Your task to perform on an android device: turn vacation reply on in the gmail app Image 0: 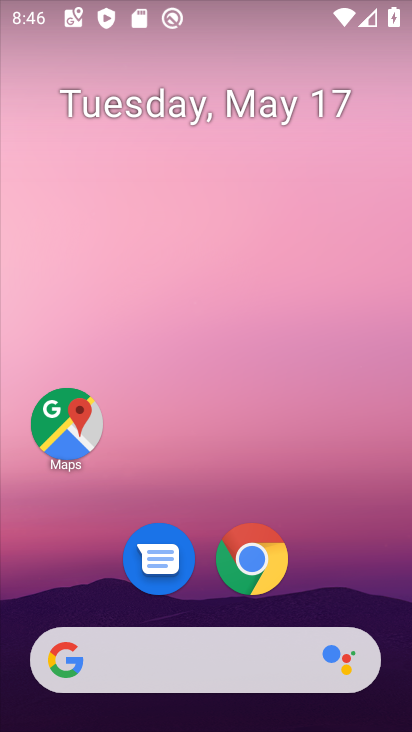
Step 0: drag from (248, 658) to (364, 309)
Your task to perform on an android device: turn vacation reply on in the gmail app Image 1: 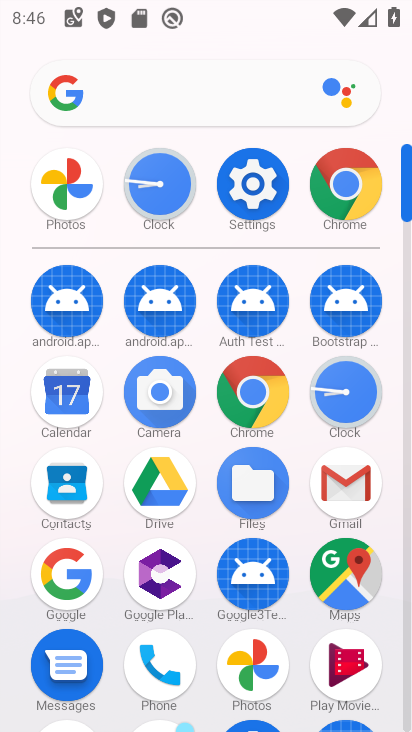
Step 1: click (347, 490)
Your task to perform on an android device: turn vacation reply on in the gmail app Image 2: 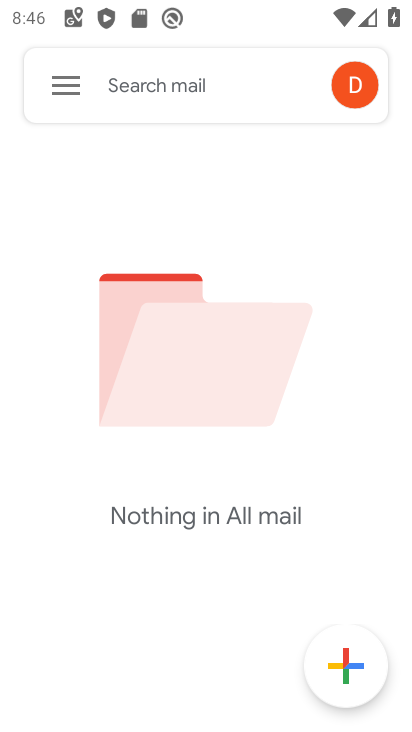
Step 2: click (56, 78)
Your task to perform on an android device: turn vacation reply on in the gmail app Image 3: 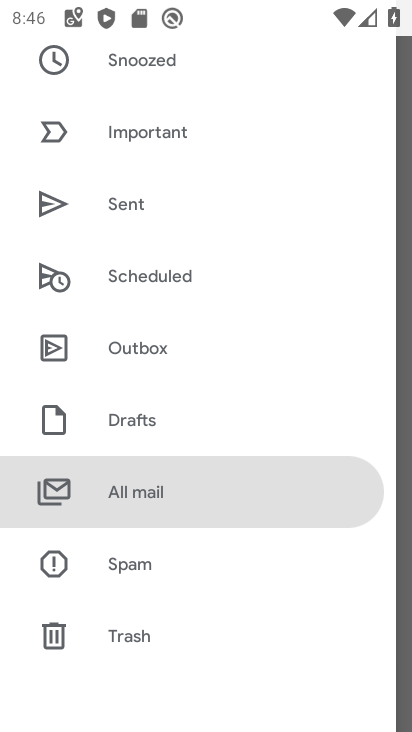
Step 3: drag from (222, 638) to (197, 213)
Your task to perform on an android device: turn vacation reply on in the gmail app Image 4: 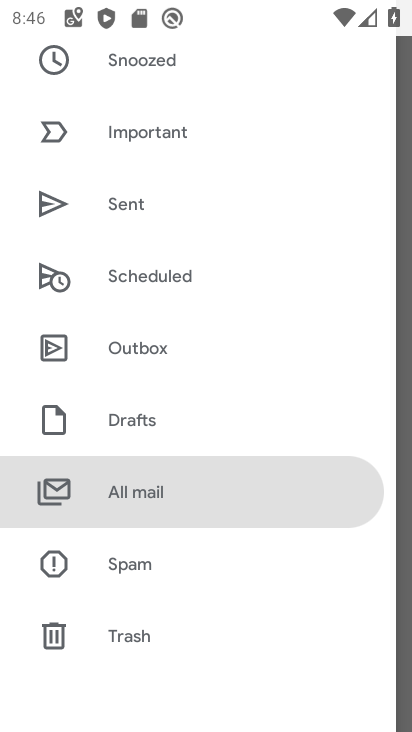
Step 4: drag from (144, 595) to (110, 189)
Your task to perform on an android device: turn vacation reply on in the gmail app Image 5: 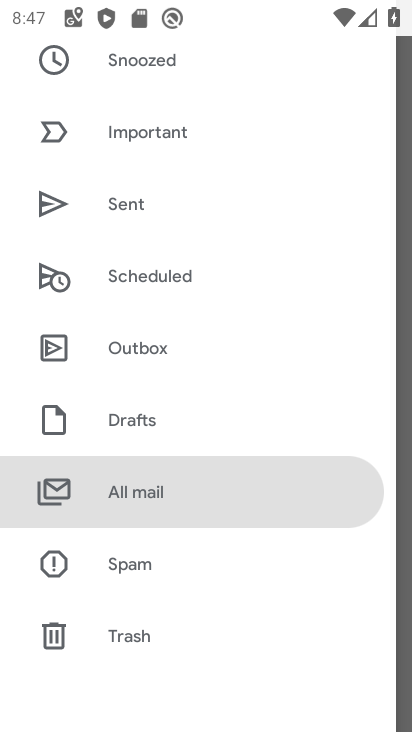
Step 5: drag from (256, 93) to (164, 730)
Your task to perform on an android device: turn vacation reply on in the gmail app Image 6: 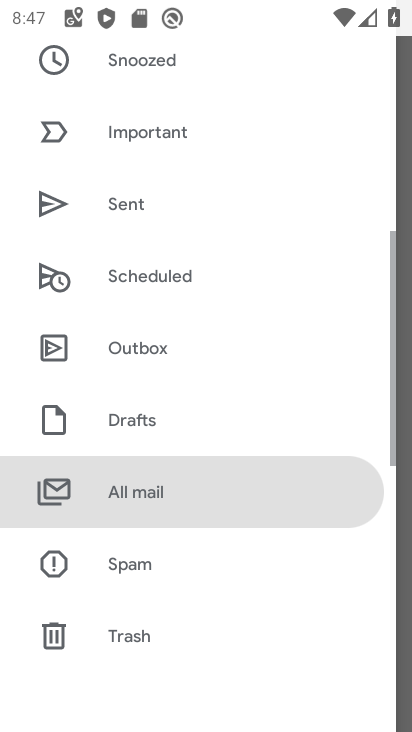
Step 6: drag from (170, 153) to (233, 686)
Your task to perform on an android device: turn vacation reply on in the gmail app Image 7: 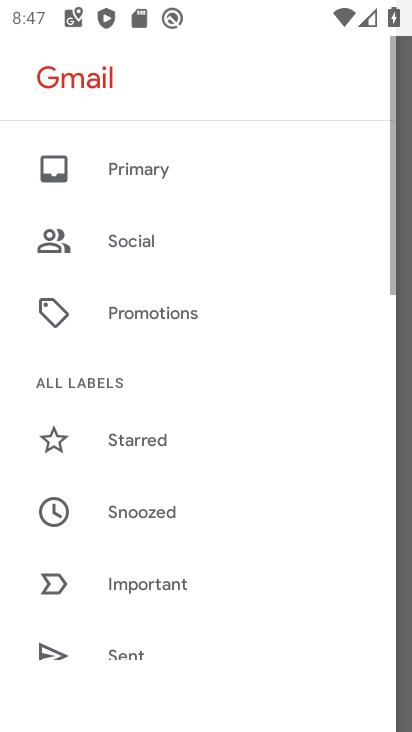
Step 7: drag from (267, 221) to (287, 716)
Your task to perform on an android device: turn vacation reply on in the gmail app Image 8: 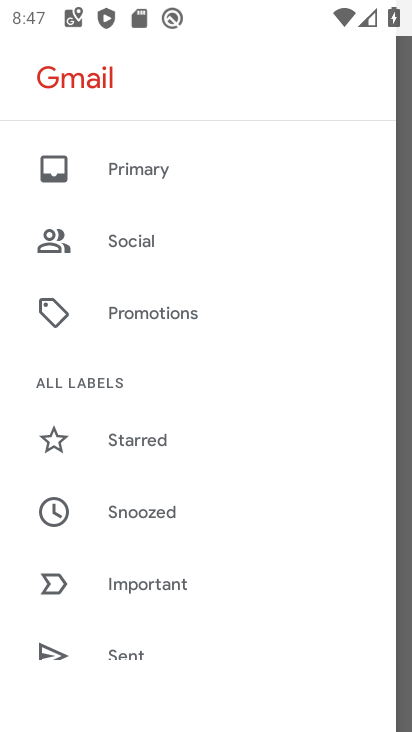
Step 8: drag from (142, 563) to (239, 28)
Your task to perform on an android device: turn vacation reply on in the gmail app Image 9: 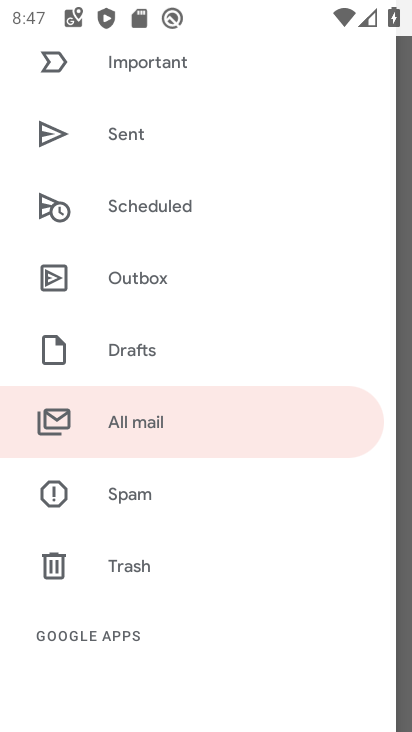
Step 9: drag from (173, 547) to (218, 173)
Your task to perform on an android device: turn vacation reply on in the gmail app Image 10: 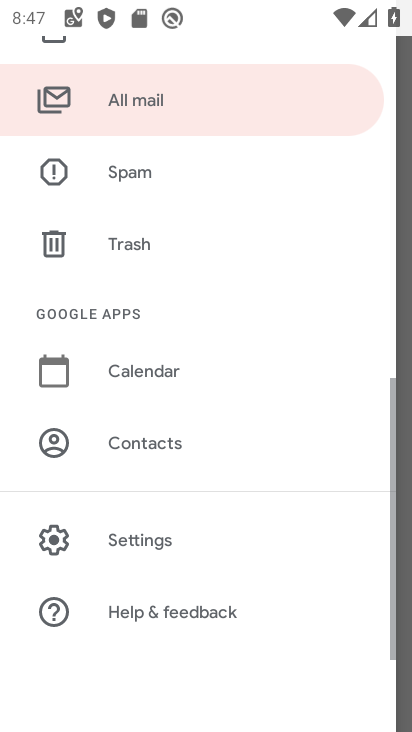
Step 10: click (193, 525)
Your task to perform on an android device: turn vacation reply on in the gmail app Image 11: 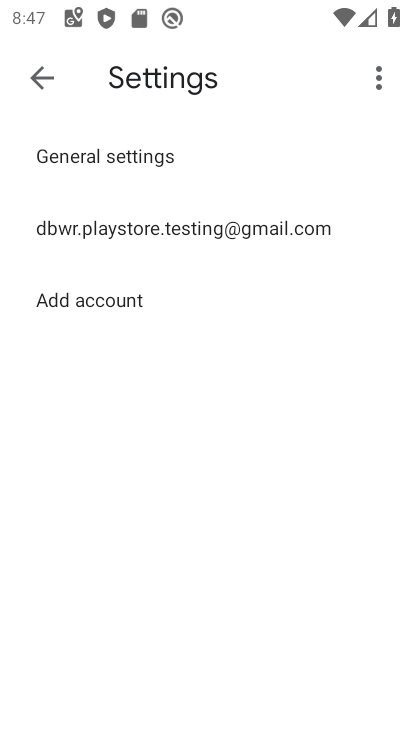
Step 11: click (219, 252)
Your task to perform on an android device: turn vacation reply on in the gmail app Image 12: 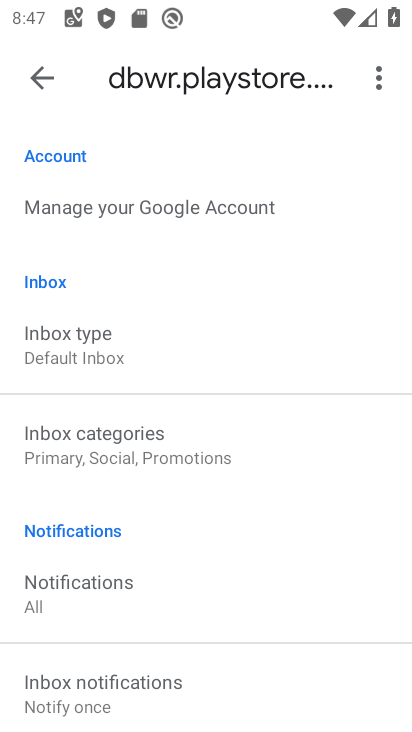
Step 12: drag from (280, 644) to (283, 33)
Your task to perform on an android device: turn vacation reply on in the gmail app Image 13: 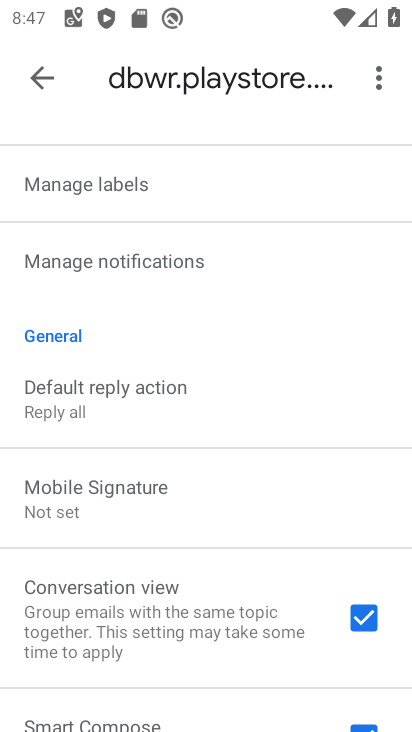
Step 13: drag from (223, 641) to (195, 119)
Your task to perform on an android device: turn vacation reply on in the gmail app Image 14: 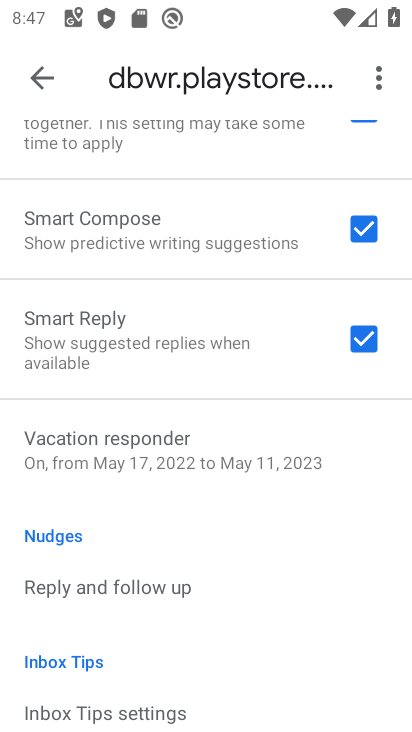
Step 14: click (314, 446)
Your task to perform on an android device: turn vacation reply on in the gmail app Image 15: 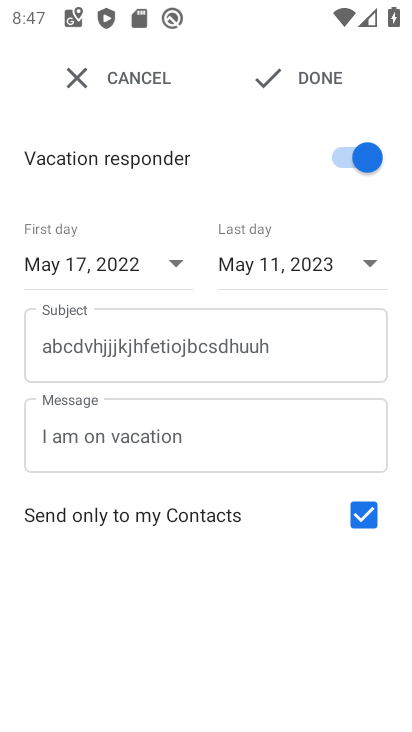
Step 15: click (324, 79)
Your task to perform on an android device: turn vacation reply on in the gmail app Image 16: 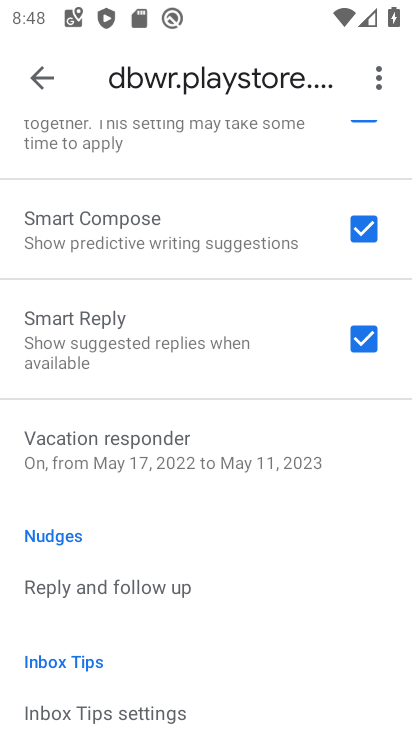
Step 16: task complete